Your task to perform on an android device: open app "Adobe Acrobat Reader: Edit PDF" Image 0: 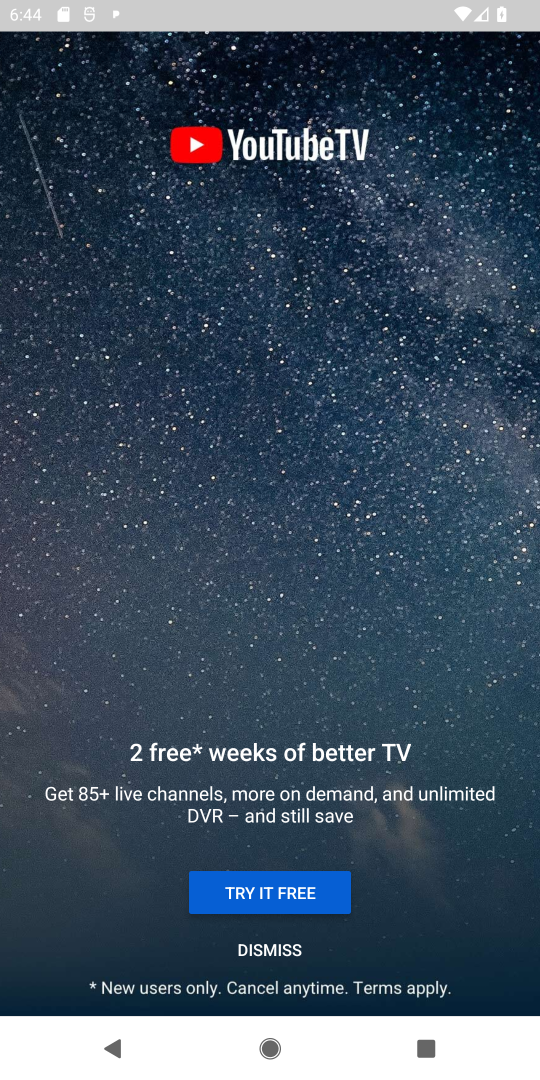
Step 0: press home button
Your task to perform on an android device: open app "Adobe Acrobat Reader: Edit PDF" Image 1: 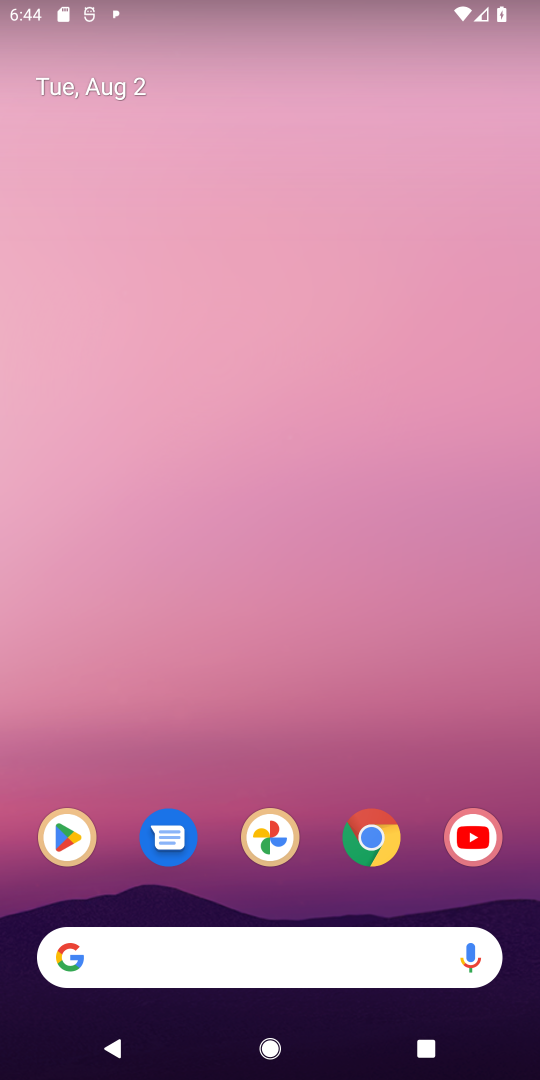
Step 1: click (54, 844)
Your task to perform on an android device: open app "Adobe Acrobat Reader: Edit PDF" Image 2: 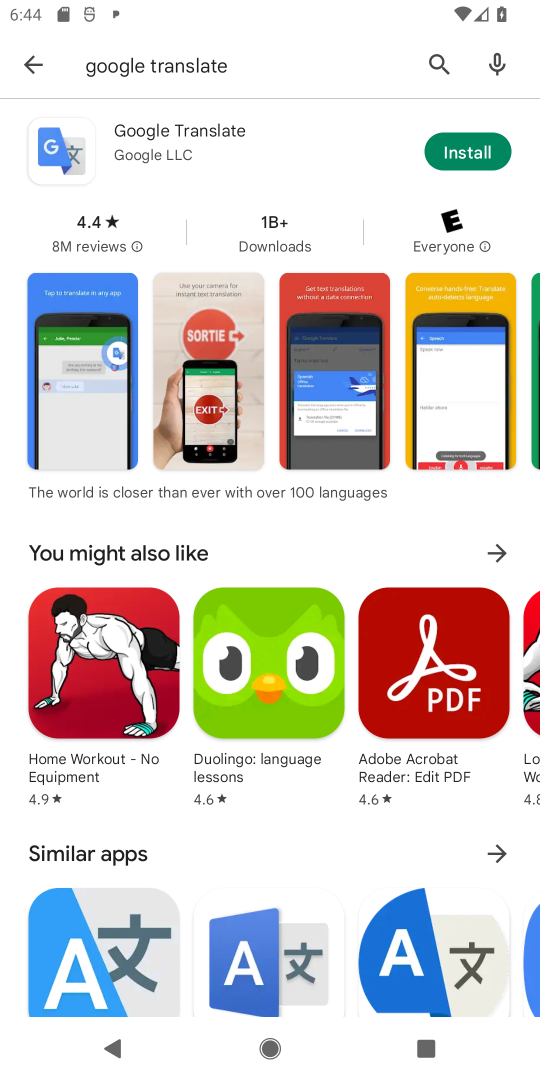
Step 2: click (432, 68)
Your task to perform on an android device: open app "Adobe Acrobat Reader: Edit PDF" Image 3: 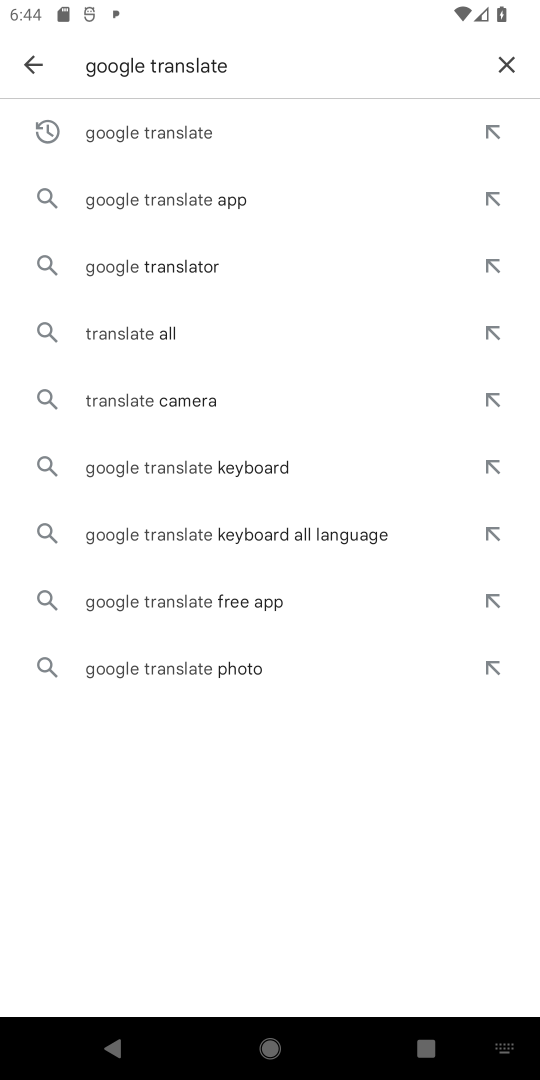
Step 3: click (506, 69)
Your task to perform on an android device: open app "Adobe Acrobat Reader: Edit PDF" Image 4: 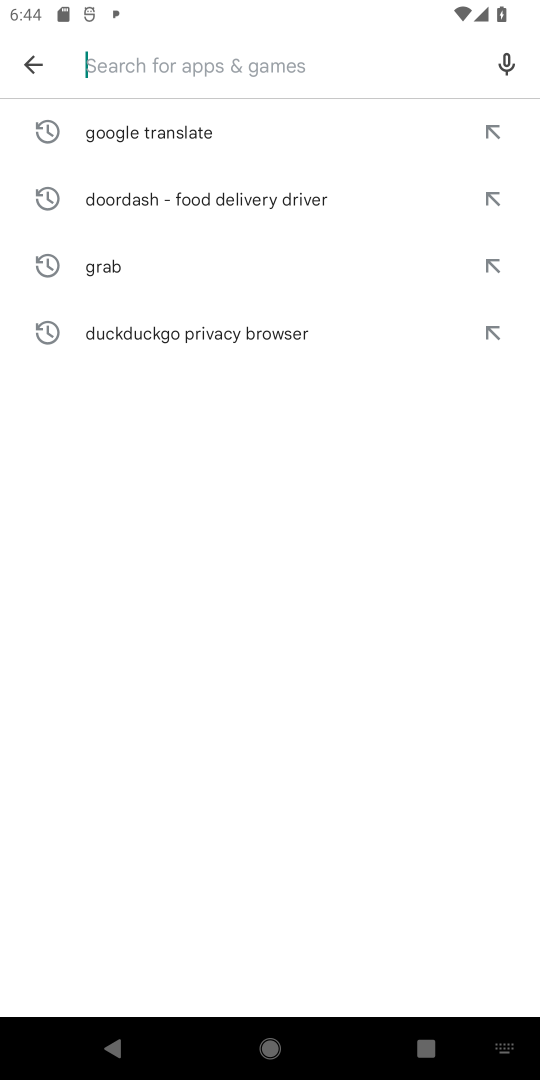
Step 4: type "Adobe Acrobat Reader: Edit PDF"
Your task to perform on an android device: open app "Adobe Acrobat Reader: Edit PDF" Image 5: 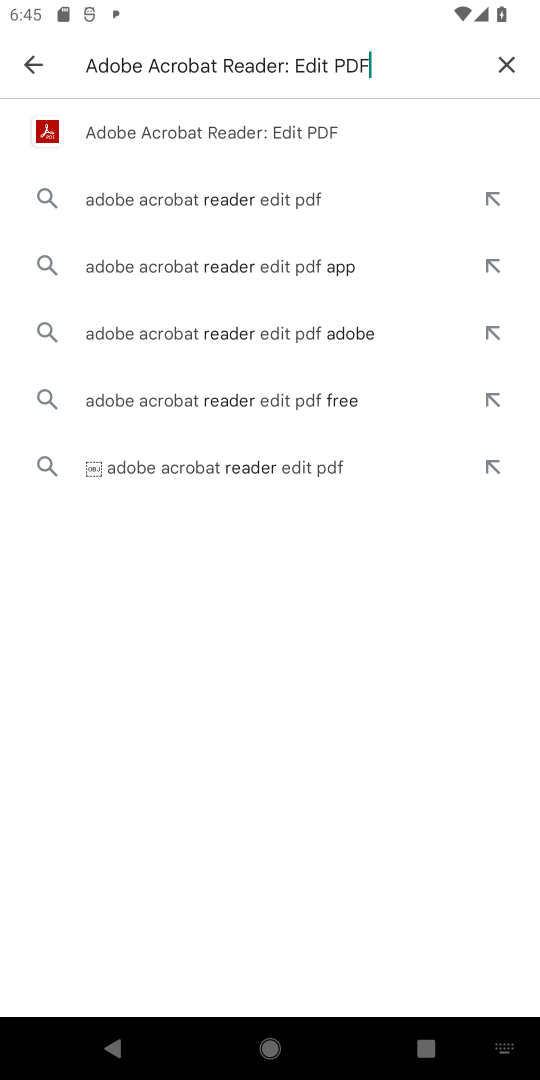
Step 5: click (225, 142)
Your task to perform on an android device: open app "Adobe Acrobat Reader: Edit PDF" Image 6: 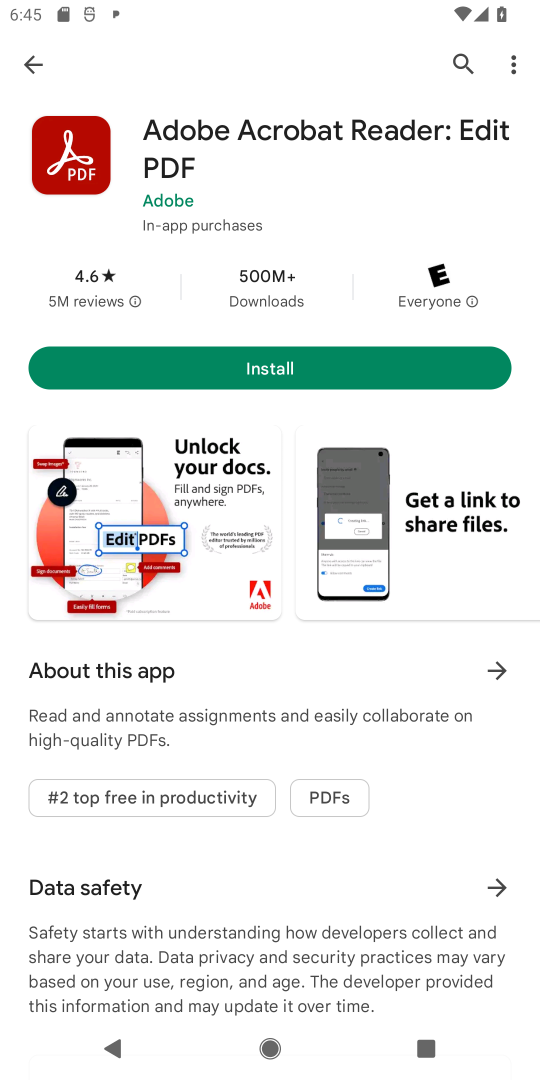
Step 6: task complete